Your task to perform on an android device: change the clock display to digital Image 0: 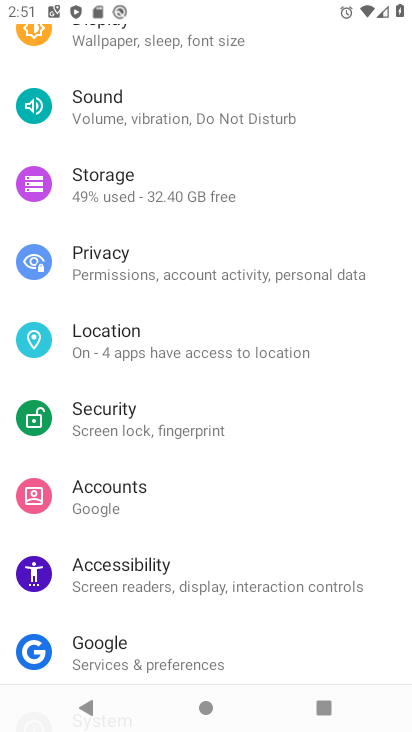
Step 0: press home button
Your task to perform on an android device: change the clock display to digital Image 1: 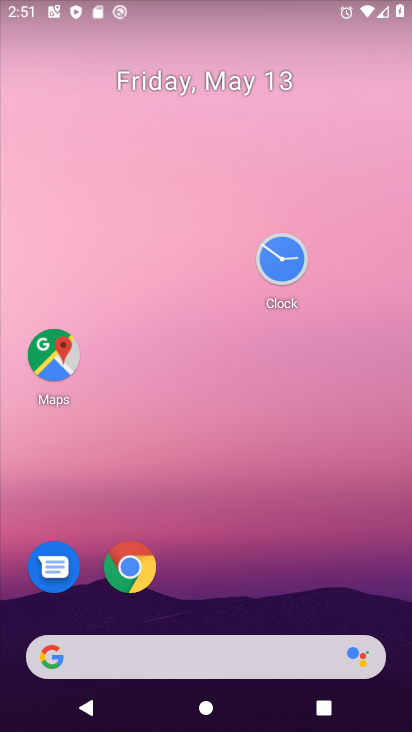
Step 1: click (278, 267)
Your task to perform on an android device: change the clock display to digital Image 2: 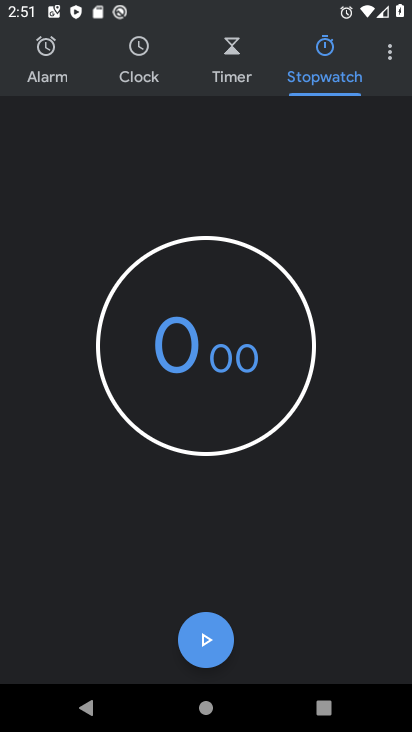
Step 2: click (374, 47)
Your task to perform on an android device: change the clock display to digital Image 3: 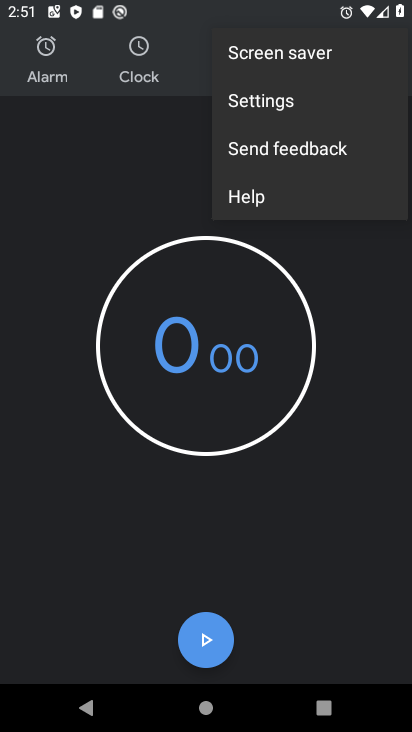
Step 3: click (289, 120)
Your task to perform on an android device: change the clock display to digital Image 4: 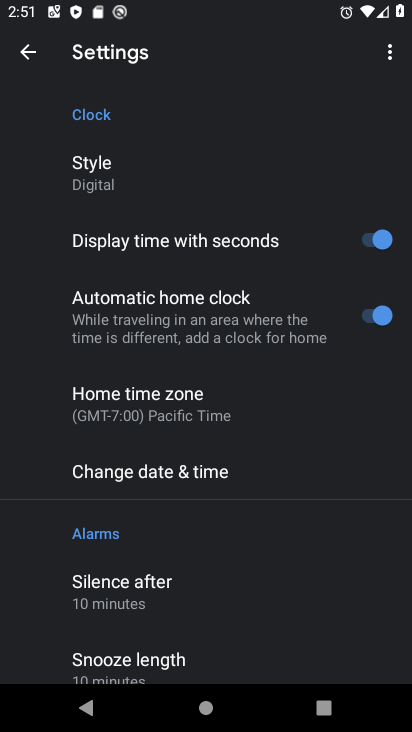
Step 4: click (198, 185)
Your task to perform on an android device: change the clock display to digital Image 5: 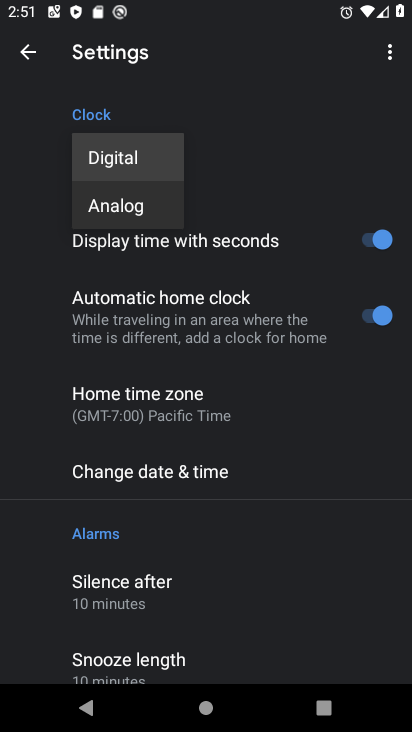
Step 5: task complete